Your task to perform on an android device: What's on my calendar tomorrow? Image 0: 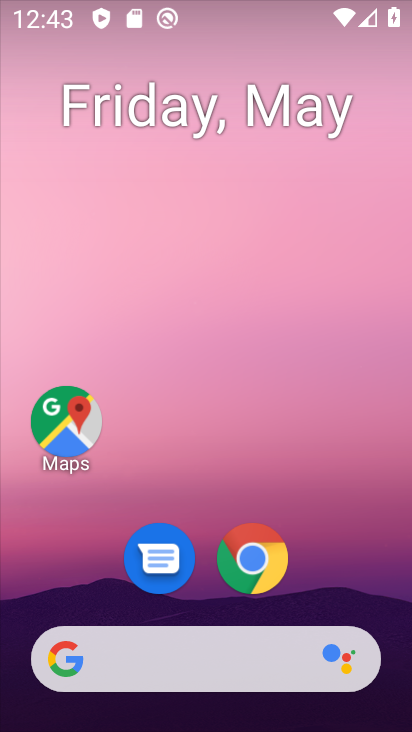
Step 0: drag from (388, 581) to (273, 128)
Your task to perform on an android device: What's on my calendar tomorrow? Image 1: 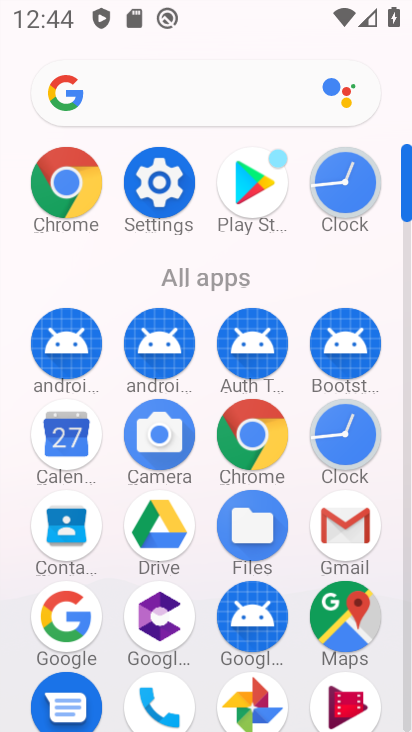
Step 1: click (78, 431)
Your task to perform on an android device: What's on my calendar tomorrow? Image 2: 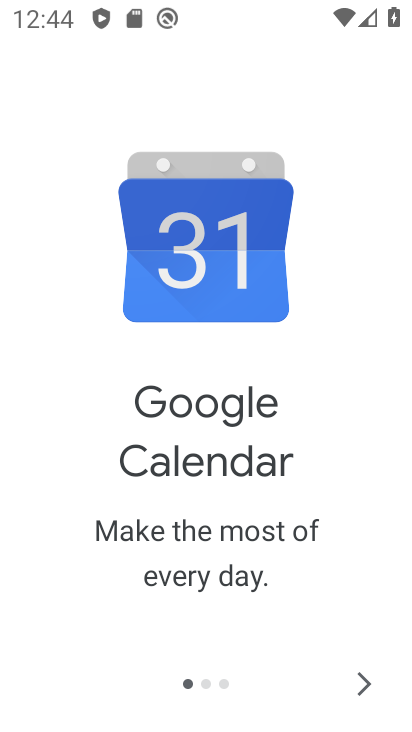
Step 2: click (366, 689)
Your task to perform on an android device: What's on my calendar tomorrow? Image 3: 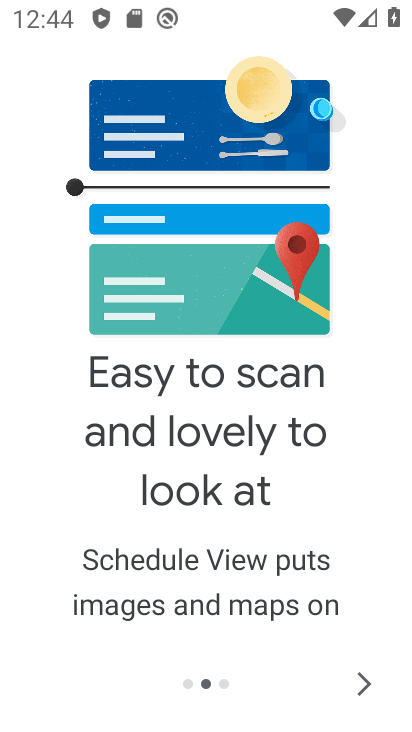
Step 3: click (366, 689)
Your task to perform on an android device: What's on my calendar tomorrow? Image 4: 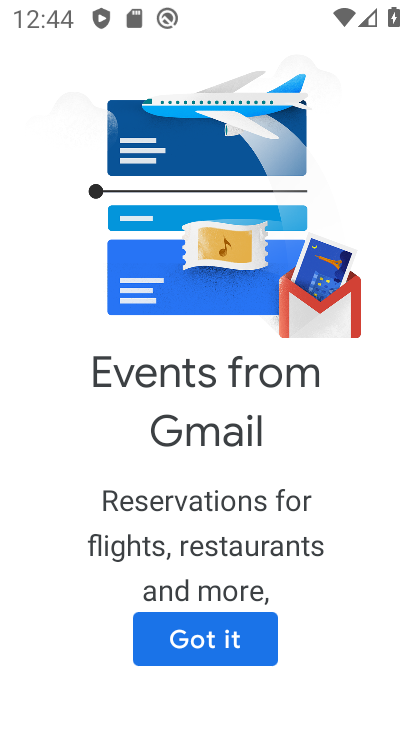
Step 4: click (209, 637)
Your task to perform on an android device: What's on my calendar tomorrow? Image 5: 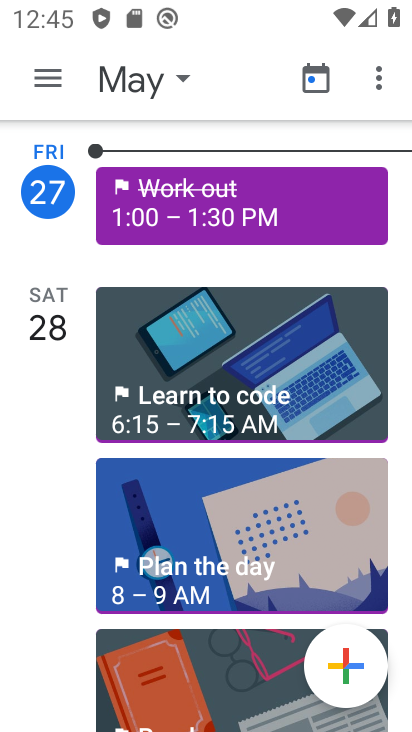
Step 5: task complete